Your task to perform on an android device: all mails in gmail Image 0: 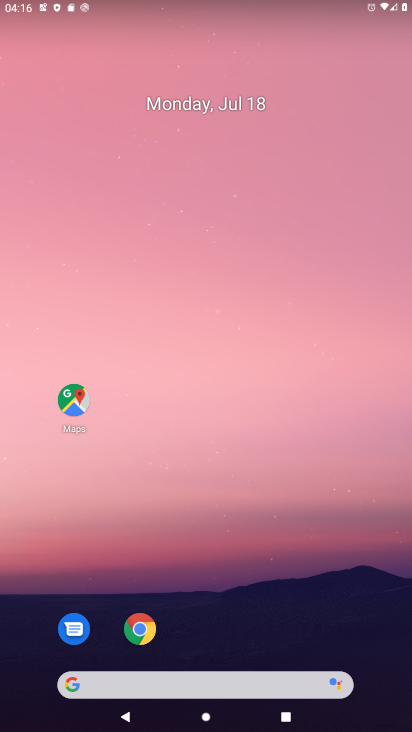
Step 0: drag from (394, 692) to (308, 98)
Your task to perform on an android device: all mails in gmail Image 1: 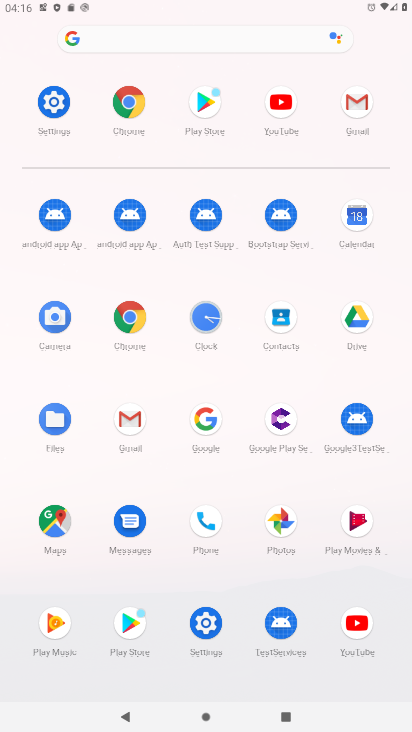
Step 1: click (128, 418)
Your task to perform on an android device: all mails in gmail Image 2: 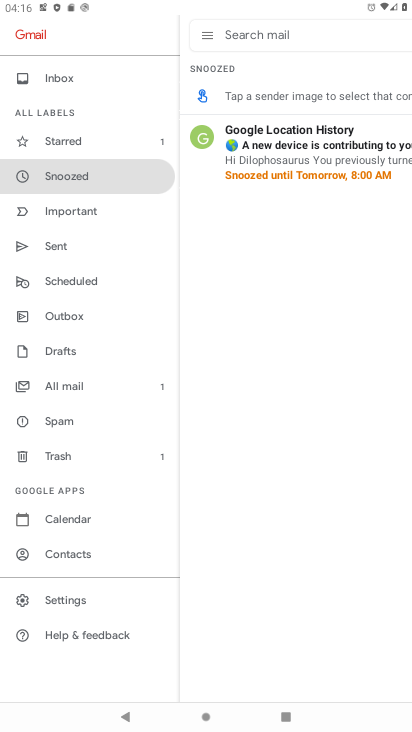
Step 2: click (57, 383)
Your task to perform on an android device: all mails in gmail Image 3: 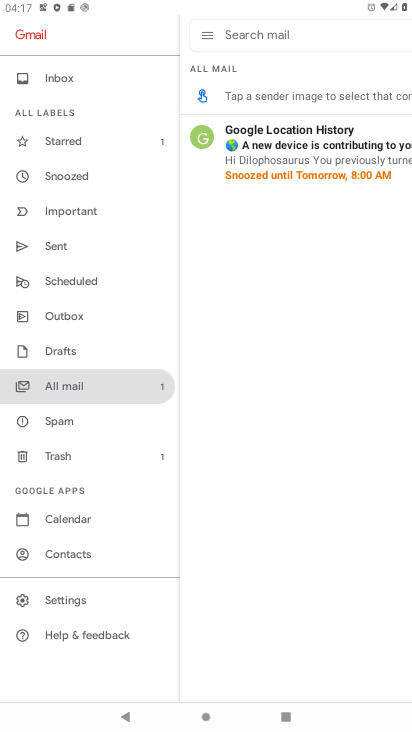
Step 3: task complete